Your task to perform on an android device: allow notifications from all sites in the chrome app Image 0: 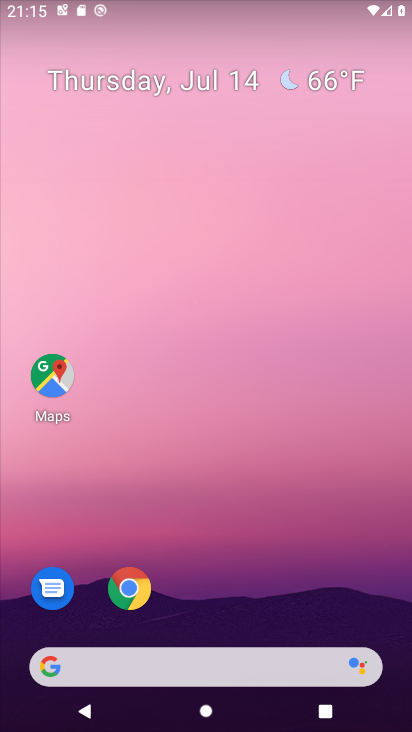
Step 0: drag from (350, 596) to (336, 187)
Your task to perform on an android device: allow notifications from all sites in the chrome app Image 1: 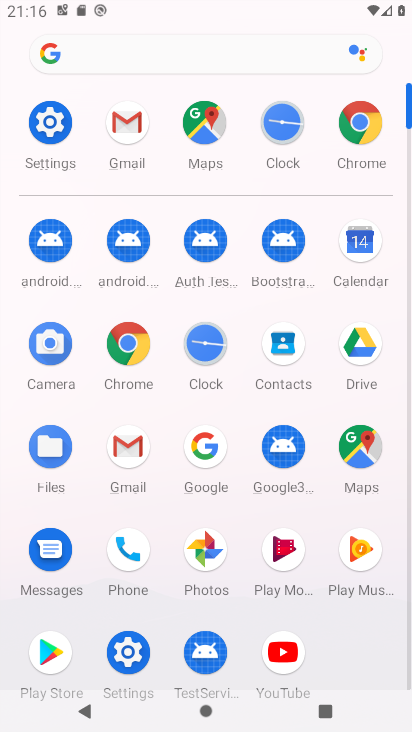
Step 1: click (348, 130)
Your task to perform on an android device: allow notifications from all sites in the chrome app Image 2: 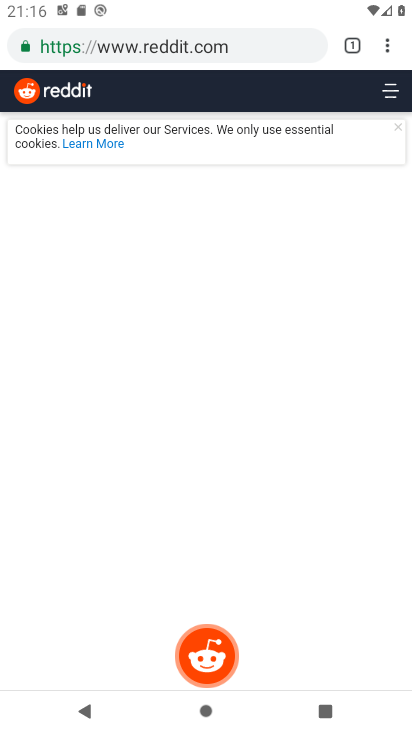
Step 2: click (384, 45)
Your task to perform on an android device: allow notifications from all sites in the chrome app Image 3: 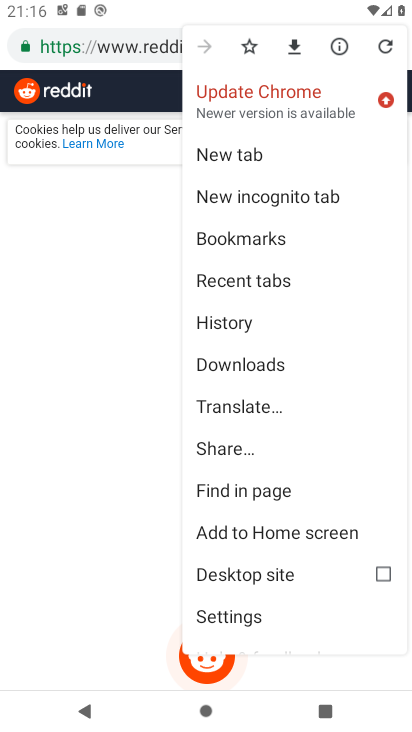
Step 3: click (298, 619)
Your task to perform on an android device: allow notifications from all sites in the chrome app Image 4: 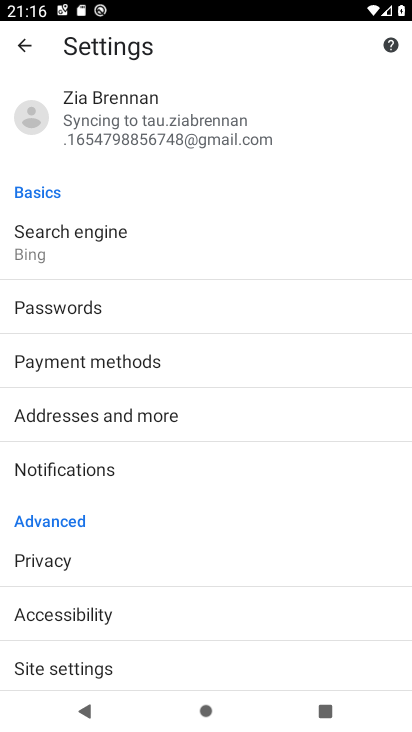
Step 4: drag from (342, 534) to (343, 419)
Your task to perform on an android device: allow notifications from all sites in the chrome app Image 5: 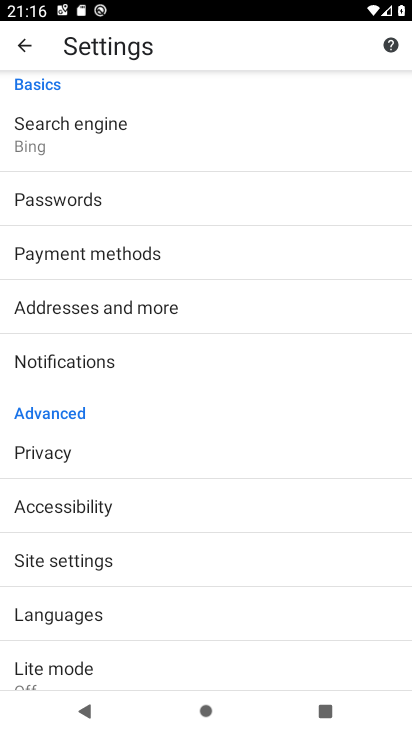
Step 5: drag from (331, 547) to (330, 411)
Your task to perform on an android device: allow notifications from all sites in the chrome app Image 6: 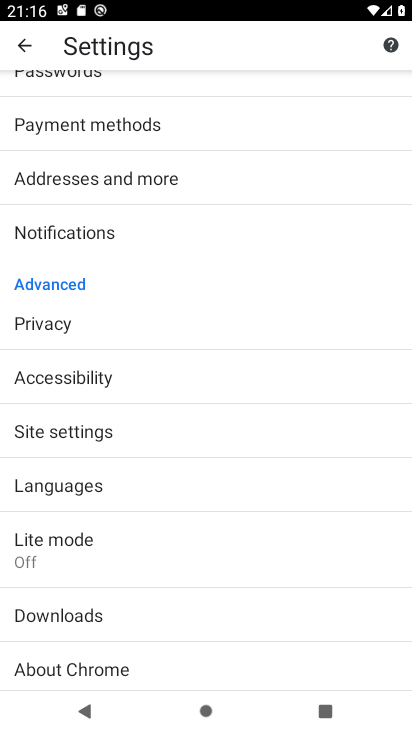
Step 6: drag from (336, 463) to (335, 378)
Your task to perform on an android device: allow notifications from all sites in the chrome app Image 7: 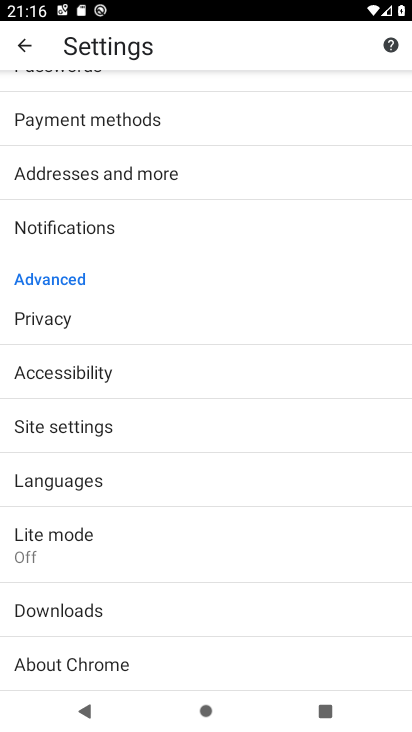
Step 7: click (191, 435)
Your task to perform on an android device: allow notifications from all sites in the chrome app Image 8: 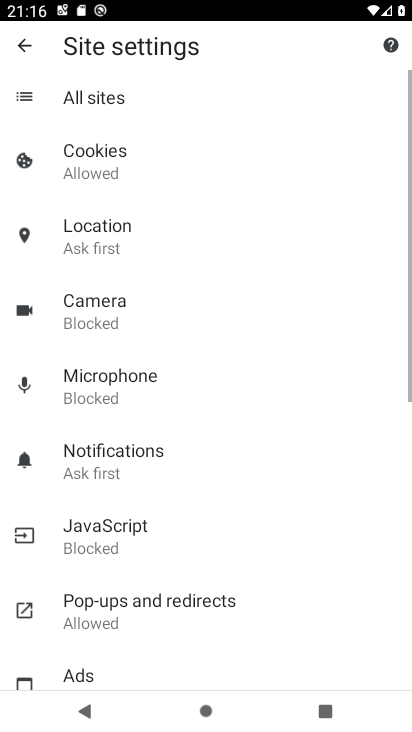
Step 8: drag from (353, 446) to (351, 382)
Your task to perform on an android device: allow notifications from all sites in the chrome app Image 9: 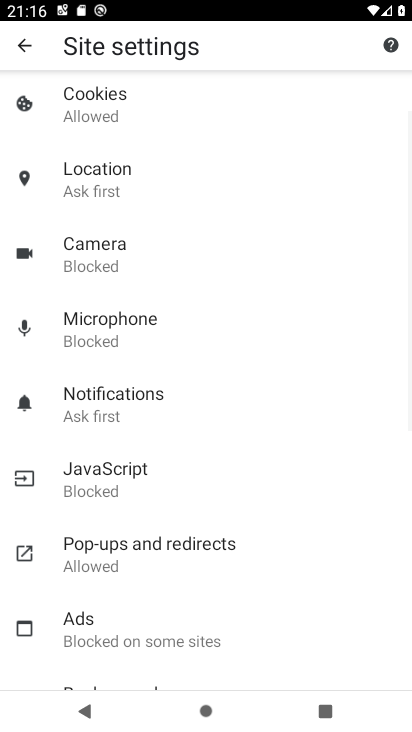
Step 9: drag from (351, 445) to (351, 365)
Your task to perform on an android device: allow notifications from all sites in the chrome app Image 10: 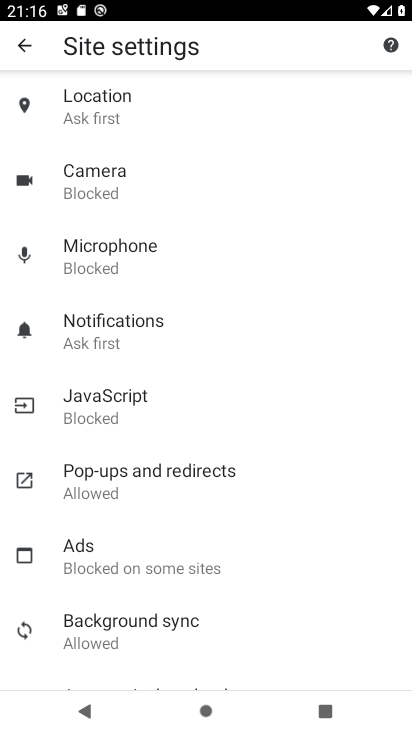
Step 10: drag from (341, 474) to (342, 401)
Your task to perform on an android device: allow notifications from all sites in the chrome app Image 11: 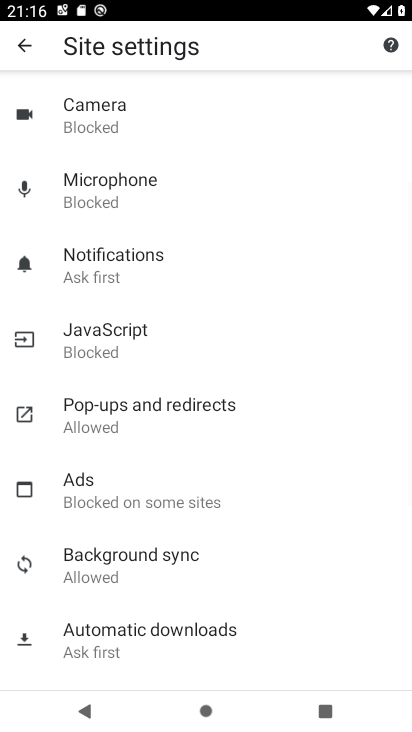
Step 11: drag from (348, 459) to (336, 358)
Your task to perform on an android device: allow notifications from all sites in the chrome app Image 12: 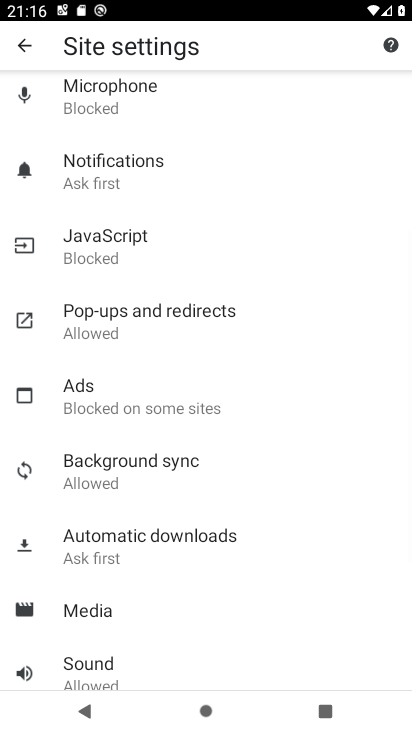
Step 12: drag from (329, 452) to (327, 362)
Your task to perform on an android device: allow notifications from all sites in the chrome app Image 13: 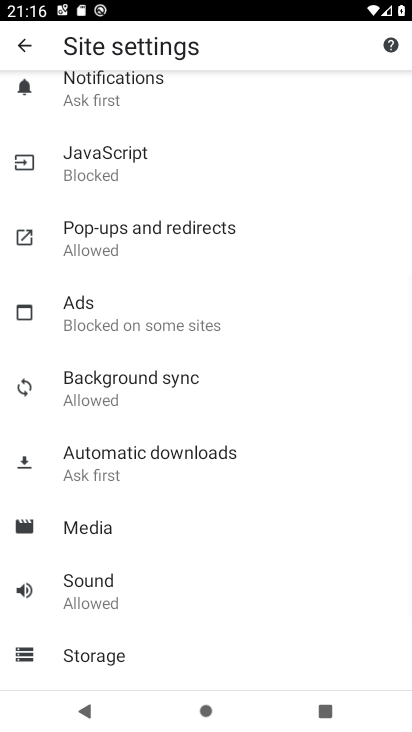
Step 13: drag from (330, 452) to (330, 369)
Your task to perform on an android device: allow notifications from all sites in the chrome app Image 14: 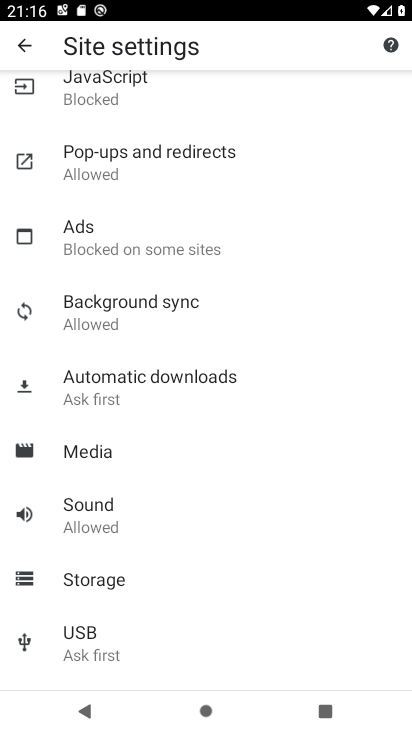
Step 14: drag from (329, 420) to (330, 343)
Your task to perform on an android device: allow notifications from all sites in the chrome app Image 15: 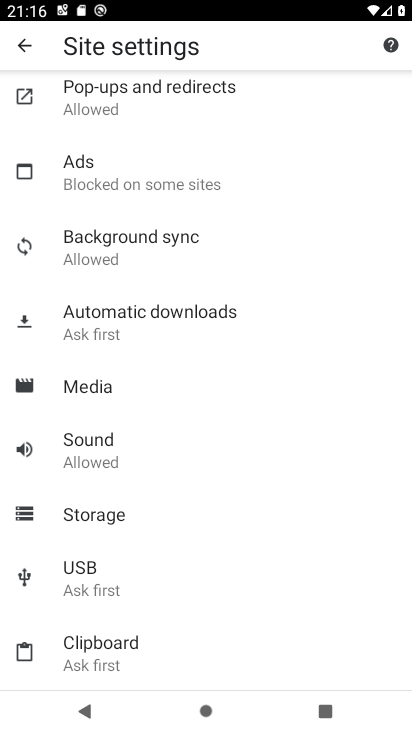
Step 15: drag from (316, 436) to (318, 364)
Your task to perform on an android device: allow notifications from all sites in the chrome app Image 16: 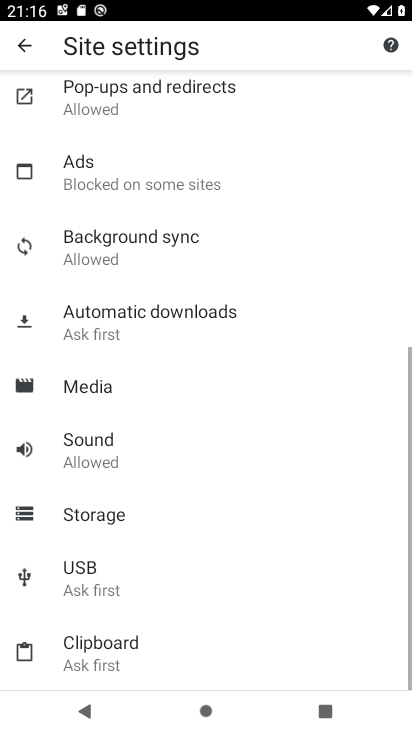
Step 16: drag from (318, 301) to (312, 378)
Your task to perform on an android device: allow notifications from all sites in the chrome app Image 17: 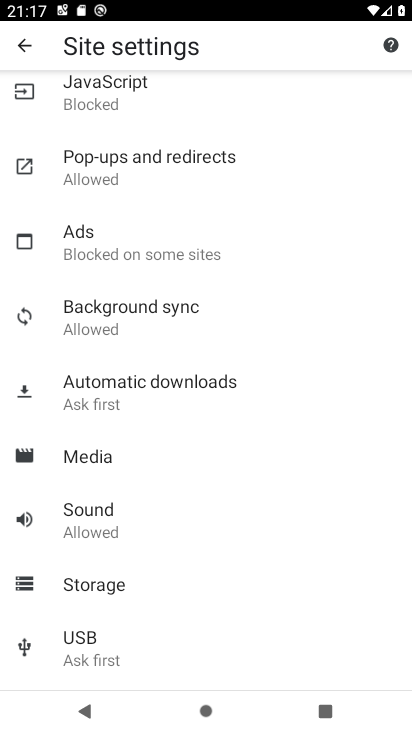
Step 17: drag from (324, 321) to (327, 386)
Your task to perform on an android device: allow notifications from all sites in the chrome app Image 18: 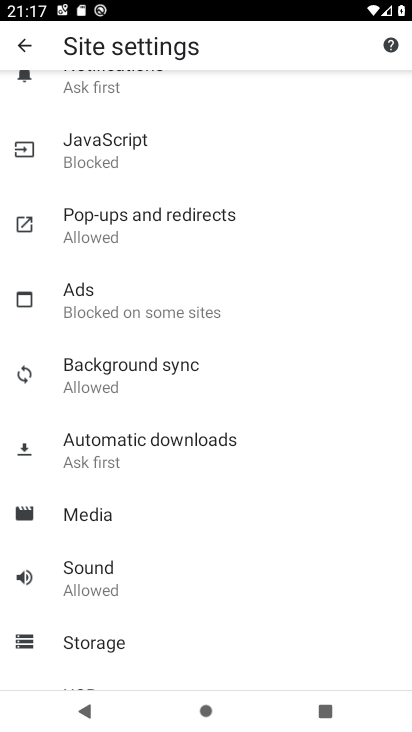
Step 18: drag from (355, 318) to (356, 398)
Your task to perform on an android device: allow notifications from all sites in the chrome app Image 19: 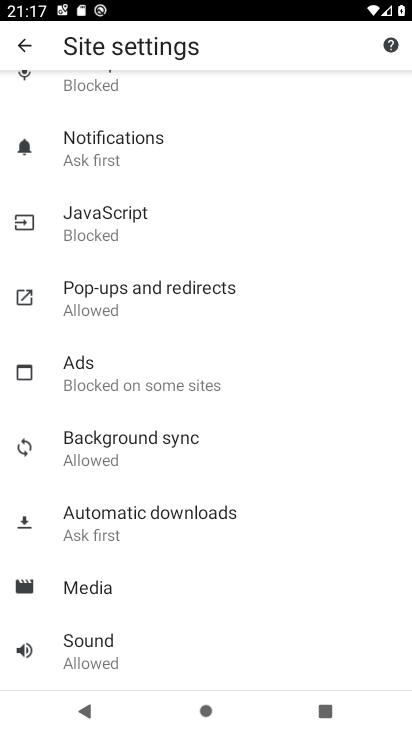
Step 19: drag from (341, 270) to (341, 331)
Your task to perform on an android device: allow notifications from all sites in the chrome app Image 20: 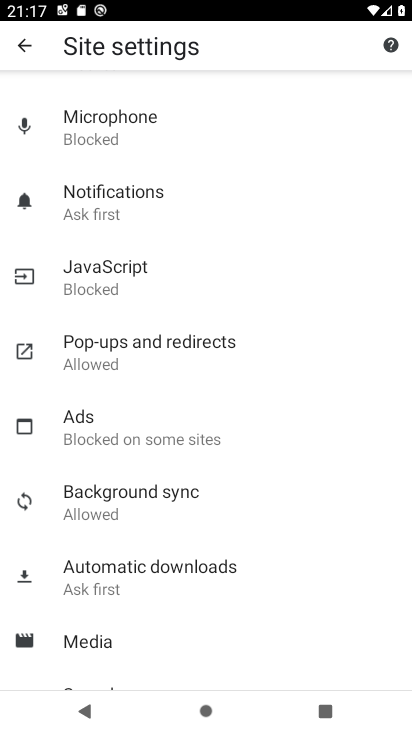
Step 20: drag from (342, 259) to (342, 331)
Your task to perform on an android device: allow notifications from all sites in the chrome app Image 21: 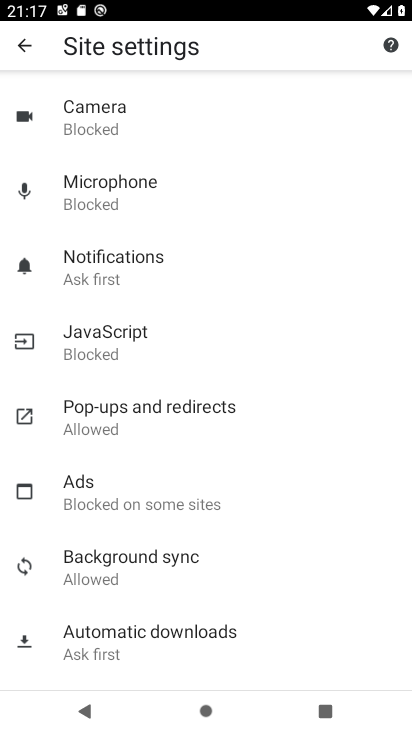
Step 21: drag from (342, 264) to (334, 333)
Your task to perform on an android device: allow notifications from all sites in the chrome app Image 22: 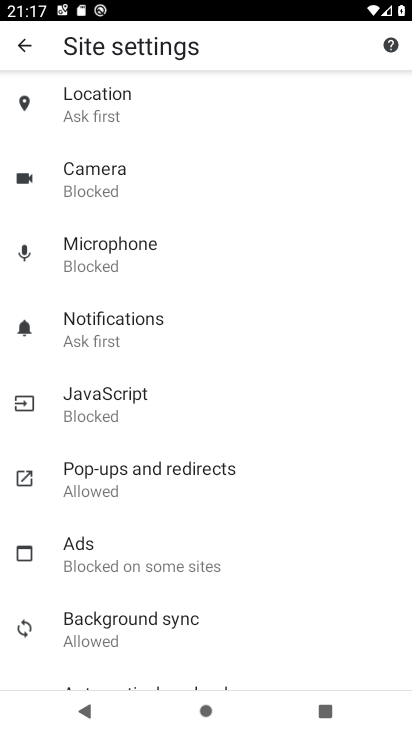
Step 22: drag from (337, 264) to (334, 331)
Your task to perform on an android device: allow notifications from all sites in the chrome app Image 23: 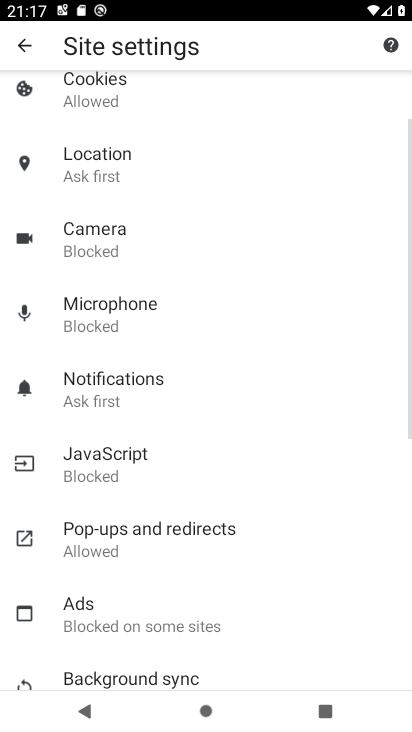
Step 23: drag from (334, 286) to (335, 350)
Your task to perform on an android device: allow notifications from all sites in the chrome app Image 24: 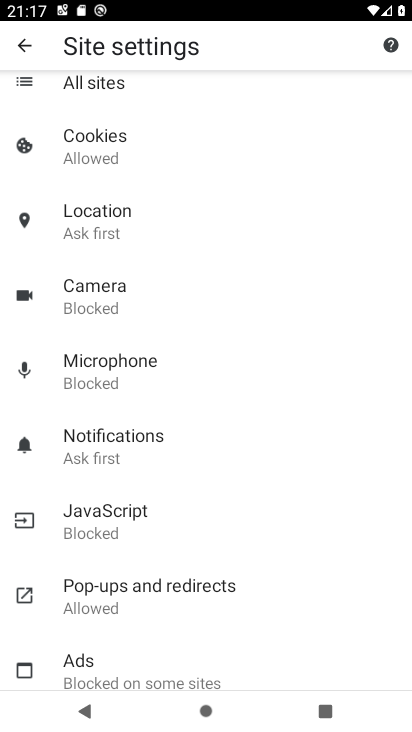
Step 24: click (226, 457)
Your task to perform on an android device: allow notifications from all sites in the chrome app Image 25: 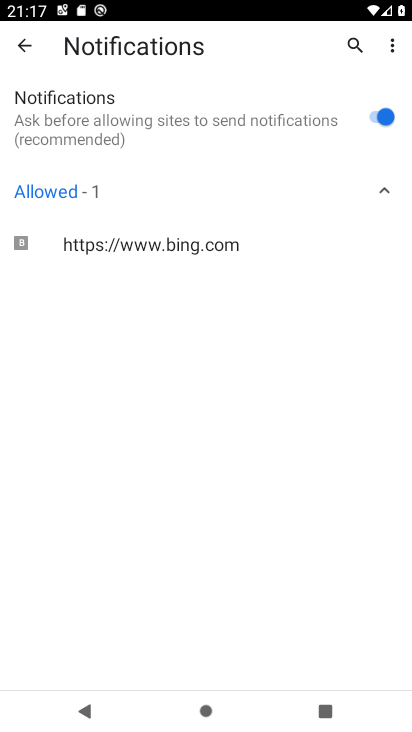
Step 25: task complete